Your task to perform on an android device: Open Yahoo.com Image 0: 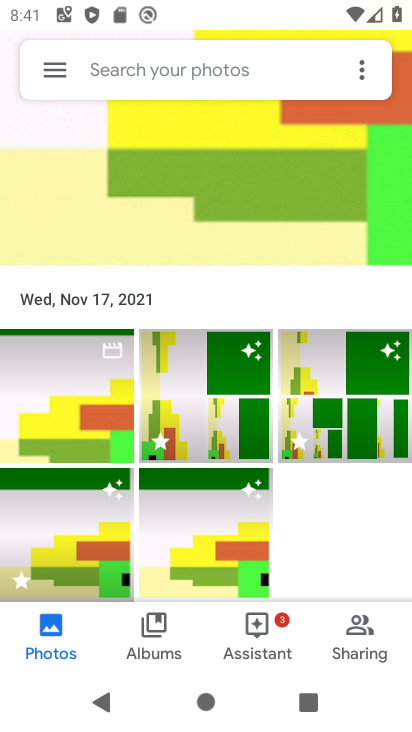
Step 0: press home button
Your task to perform on an android device: Open Yahoo.com Image 1: 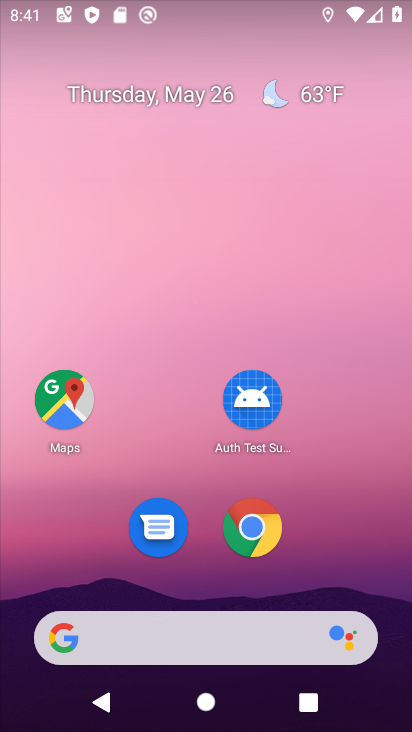
Step 1: drag from (373, 525) to (390, 97)
Your task to perform on an android device: Open Yahoo.com Image 2: 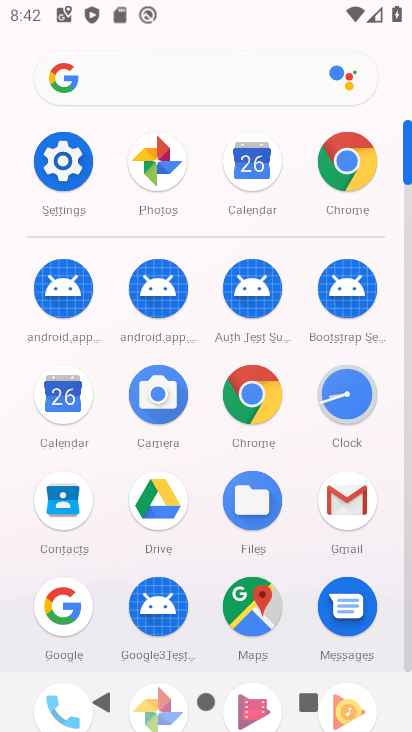
Step 2: click (334, 161)
Your task to perform on an android device: Open Yahoo.com Image 3: 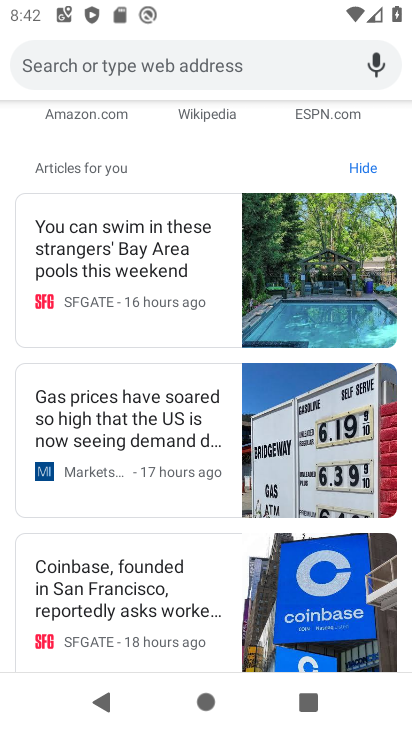
Step 3: drag from (142, 111) to (172, 512)
Your task to perform on an android device: Open Yahoo.com Image 4: 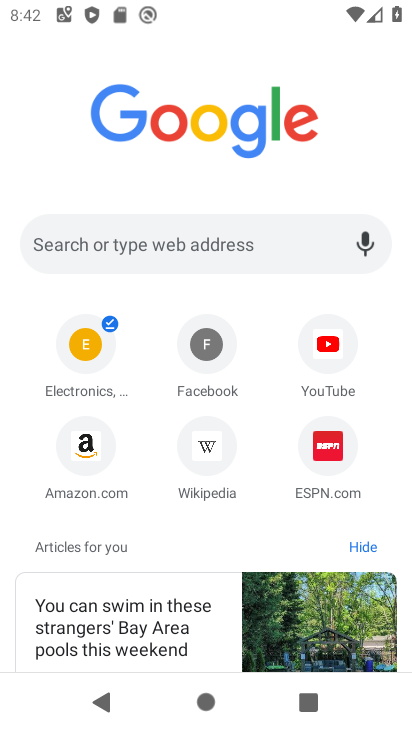
Step 4: click (196, 250)
Your task to perform on an android device: Open Yahoo.com Image 5: 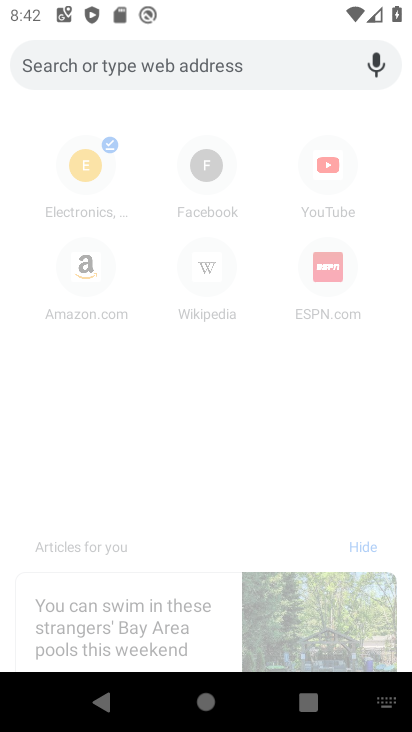
Step 5: type "yahoo"
Your task to perform on an android device: Open Yahoo.com Image 6: 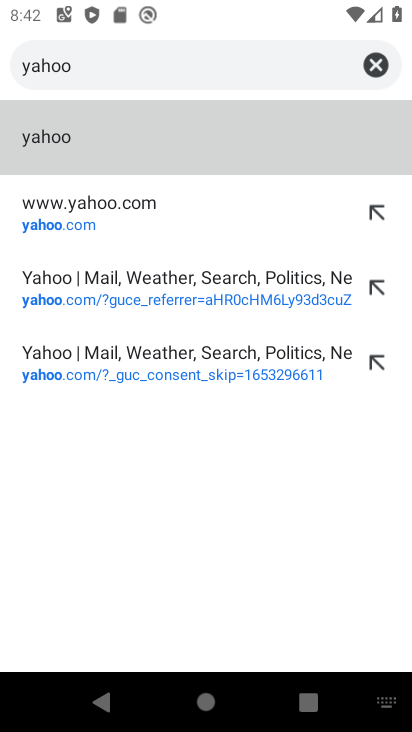
Step 6: click (64, 188)
Your task to perform on an android device: Open Yahoo.com Image 7: 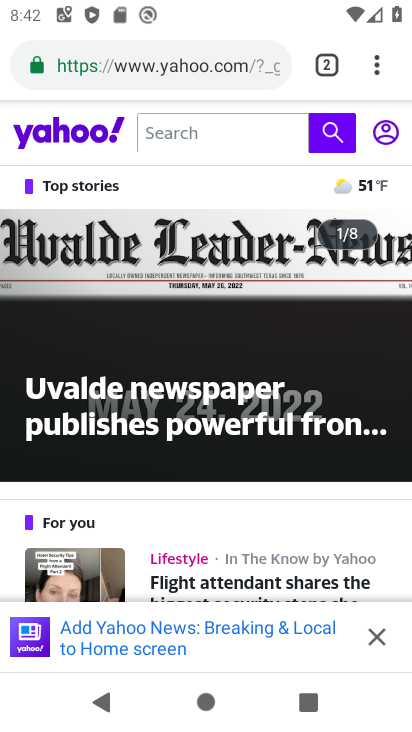
Step 7: task complete